Your task to perform on an android device: Search for pizza restaurants on Maps Image 0: 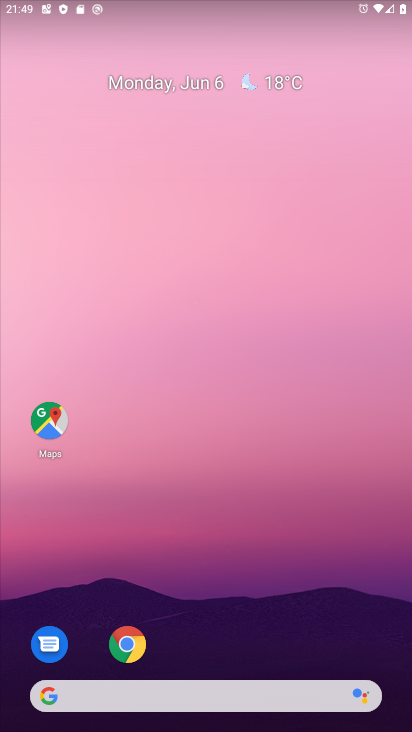
Step 0: drag from (344, 624) to (332, 133)
Your task to perform on an android device: Search for pizza restaurants on Maps Image 1: 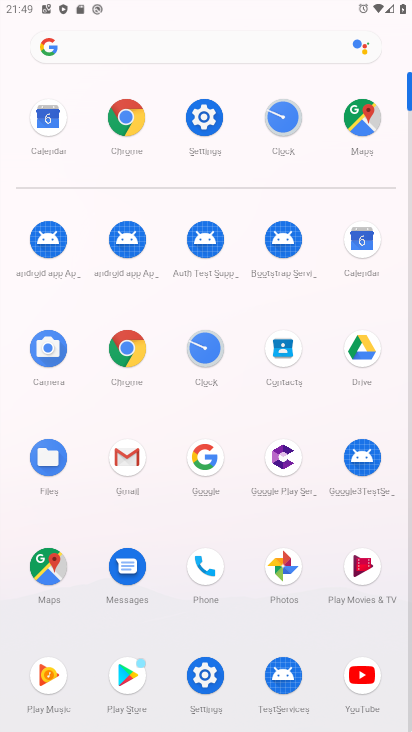
Step 1: click (53, 574)
Your task to perform on an android device: Search for pizza restaurants on Maps Image 2: 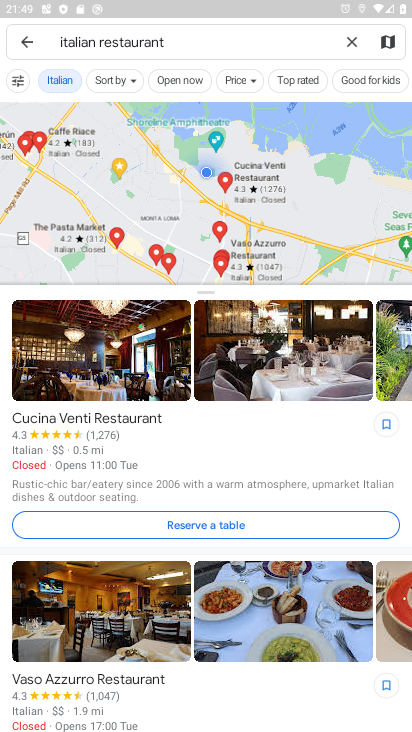
Step 2: click (359, 43)
Your task to perform on an android device: Search for pizza restaurants on Maps Image 3: 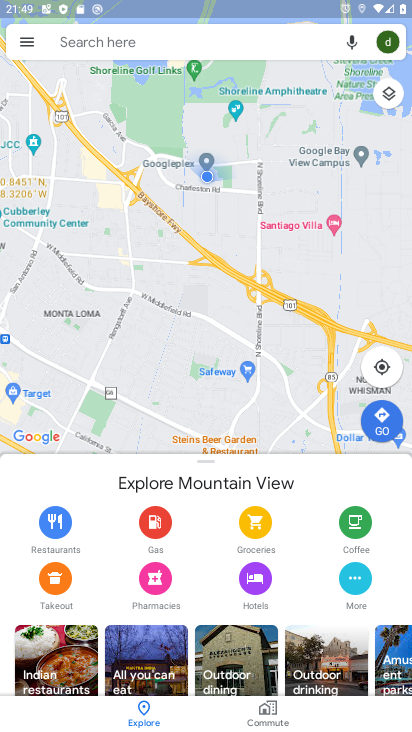
Step 3: type "pizza restaurants "
Your task to perform on an android device: Search for pizza restaurants on Maps Image 4: 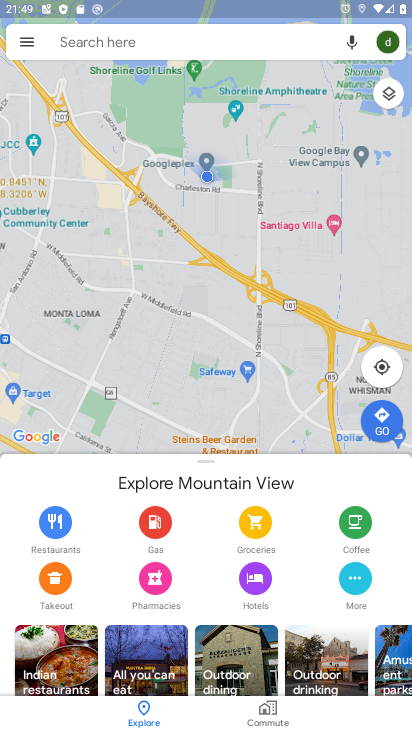
Step 4: click (128, 33)
Your task to perform on an android device: Search for pizza restaurants on Maps Image 5: 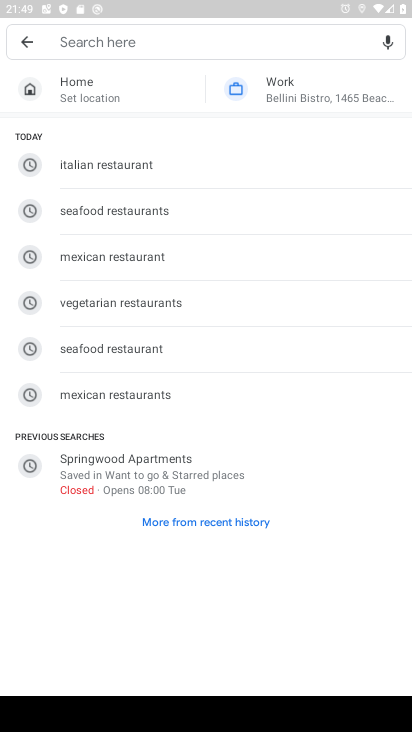
Step 5: type "pizza restaurants "
Your task to perform on an android device: Search for pizza restaurants on Maps Image 6: 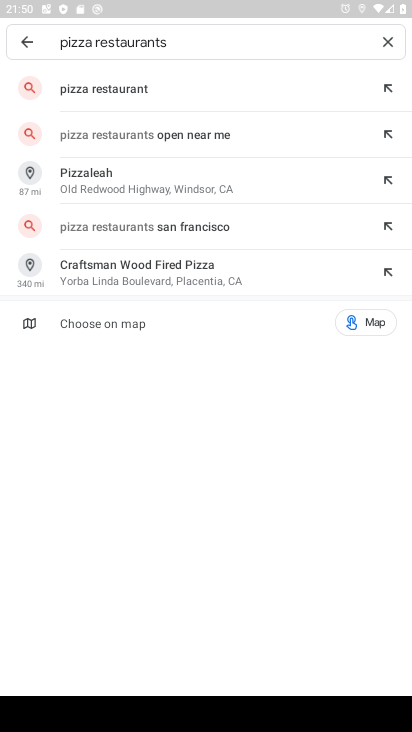
Step 6: click (149, 95)
Your task to perform on an android device: Search for pizza restaurants on Maps Image 7: 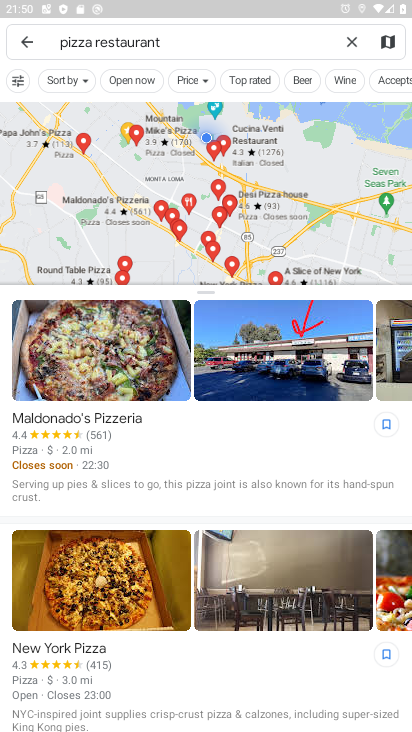
Step 7: task complete